Your task to perform on an android device: View the shopping cart on newegg. Add razer nari to the cart on newegg Image 0: 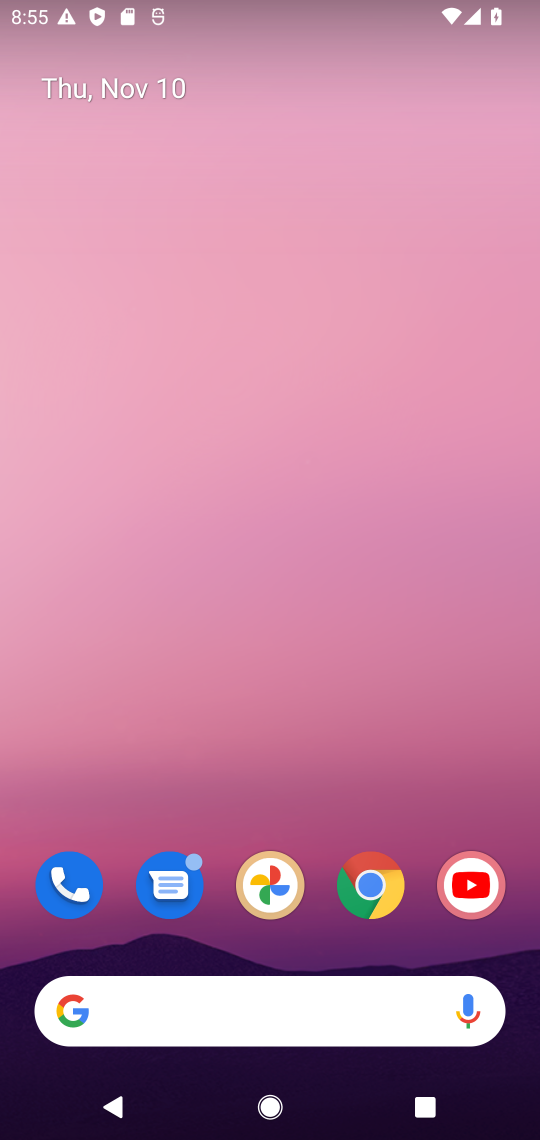
Step 0: click (370, 870)
Your task to perform on an android device: View the shopping cart on newegg. Add razer nari to the cart on newegg Image 1: 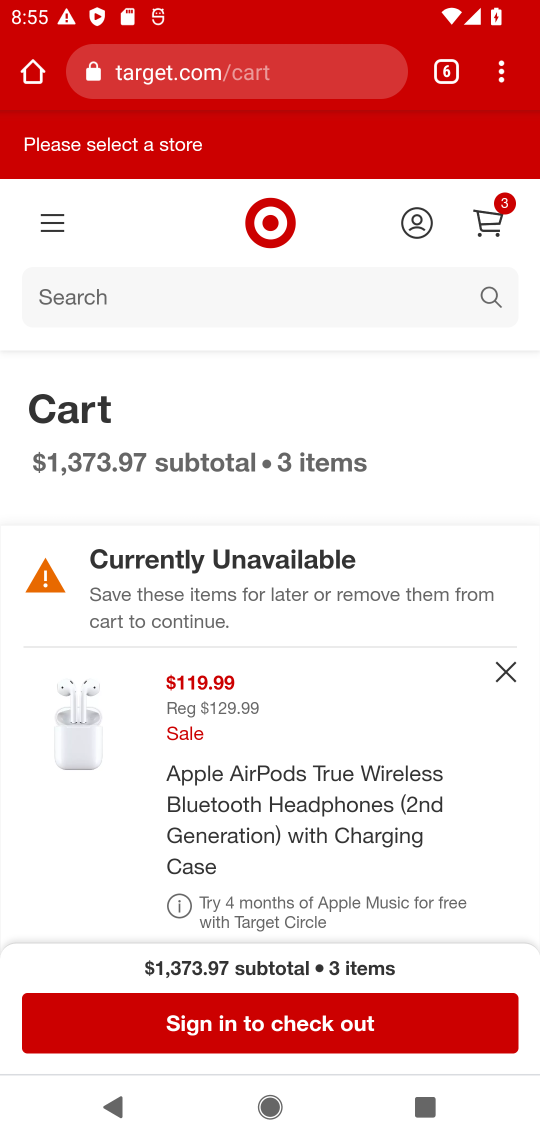
Step 1: click (284, 308)
Your task to perform on an android device: View the shopping cart on newegg. Add razer nari to the cart on newegg Image 2: 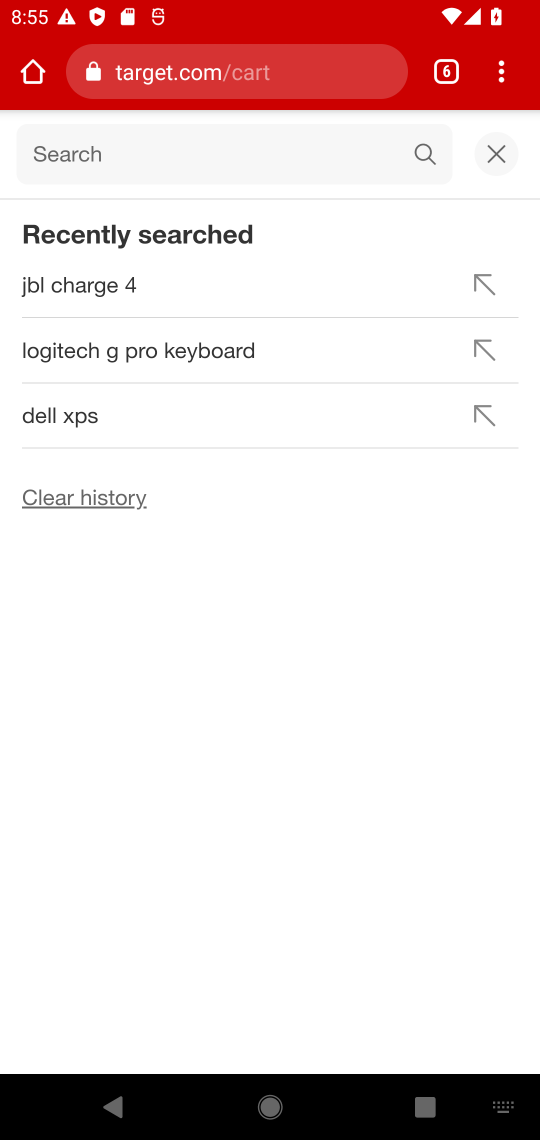
Step 2: type "razer nari"
Your task to perform on an android device: View the shopping cart on newegg. Add razer nari to the cart on newegg Image 3: 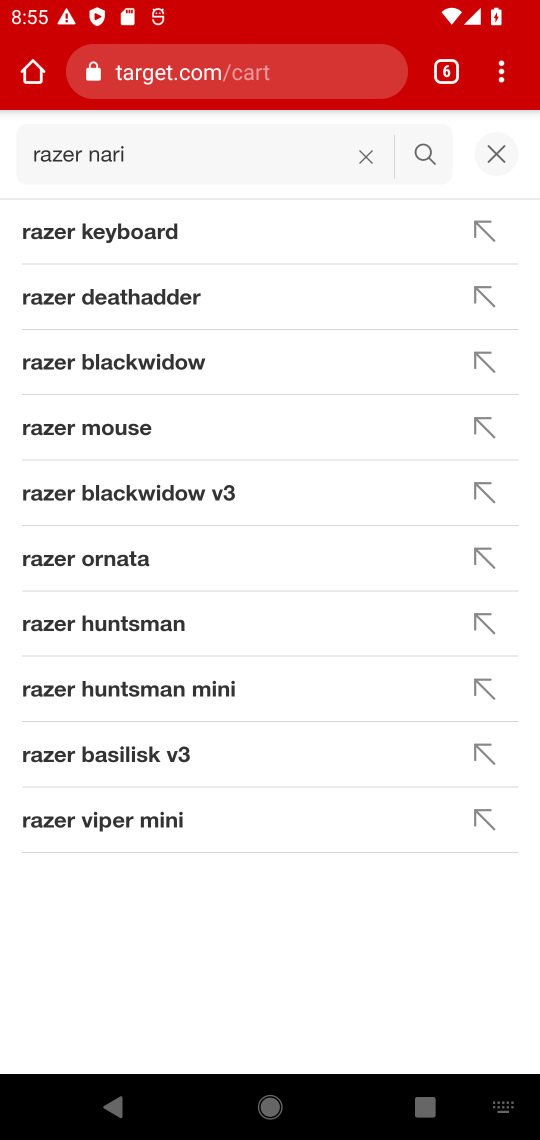
Step 3: click (414, 151)
Your task to perform on an android device: View the shopping cart on newegg. Add razer nari to the cart on newegg Image 4: 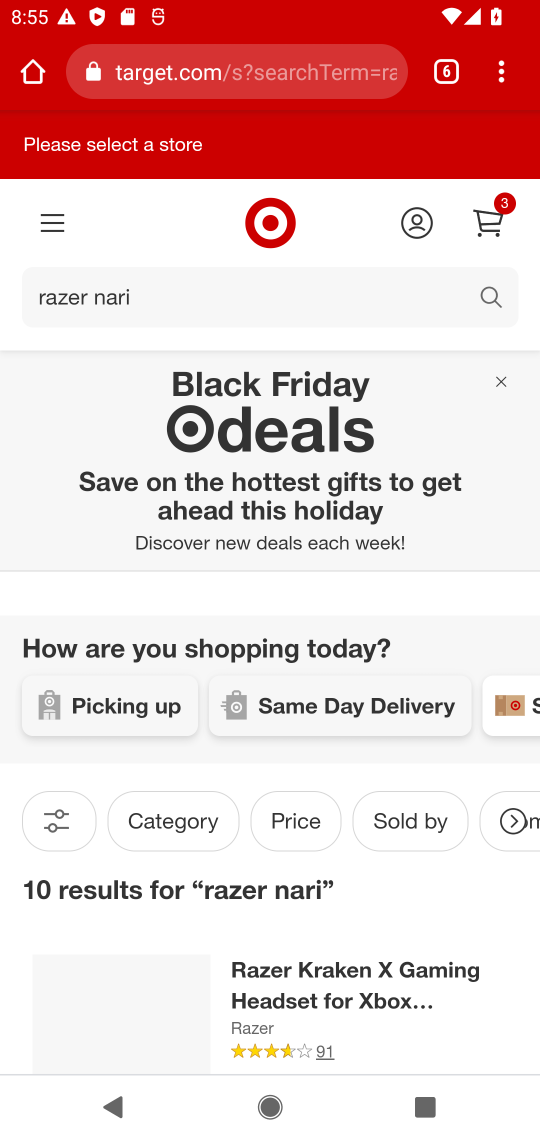
Step 4: drag from (225, 632) to (334, 92)
Your task to perform on an android device: View the shopping cart on newegg. Add razer nari to the cart on newegg Image 5: 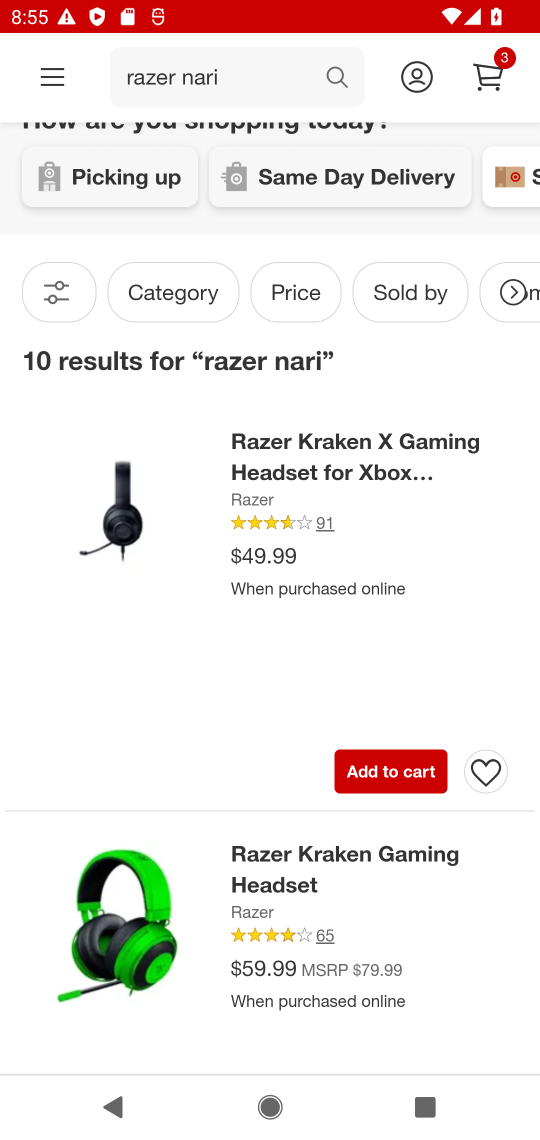
Step 5: drag from (332, 672) to (378, 366)
Your task to perform on an android device: View the shopping cart on newegg. Add razer nari to the cart on newegg Image 6: 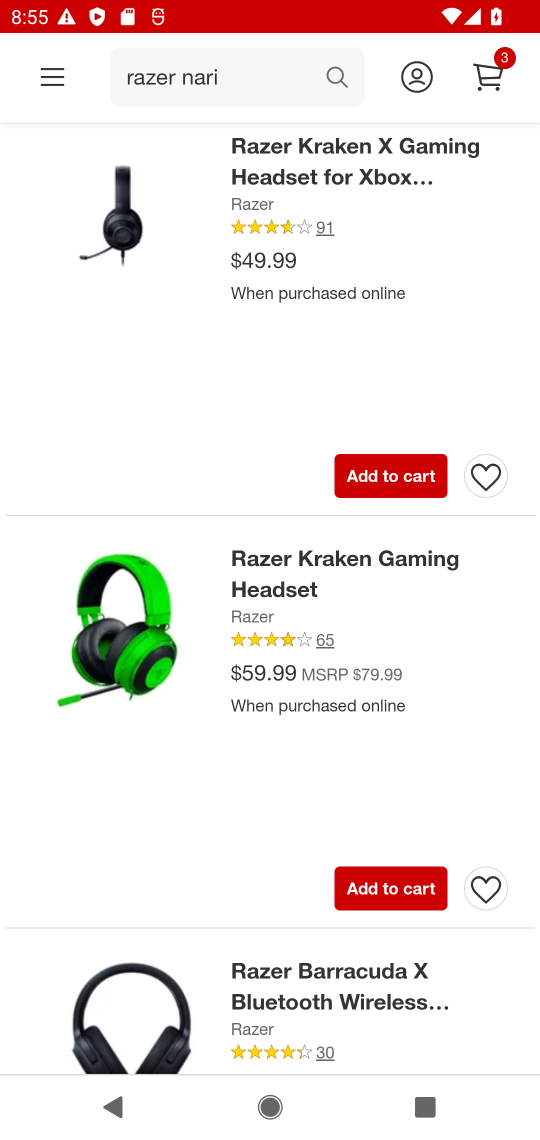
Step 6: click (385, 475)
Your task to perform on an android device: View the shopping cart on newegg. Add razer nari to the cart on newegg Image 7: 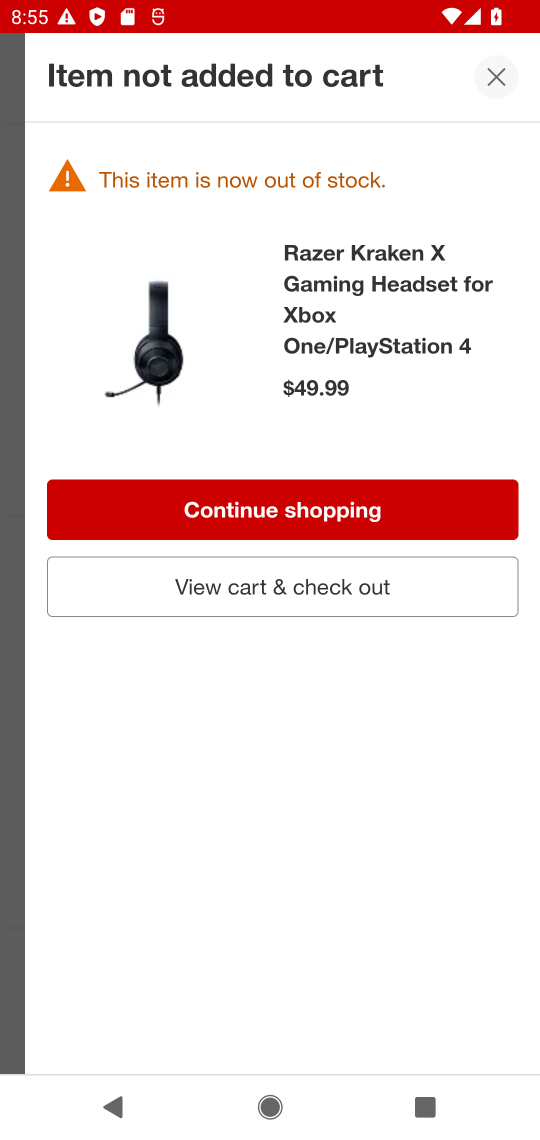
Step 7: task complete